Your task to perform on an android device: check android version Image 0: 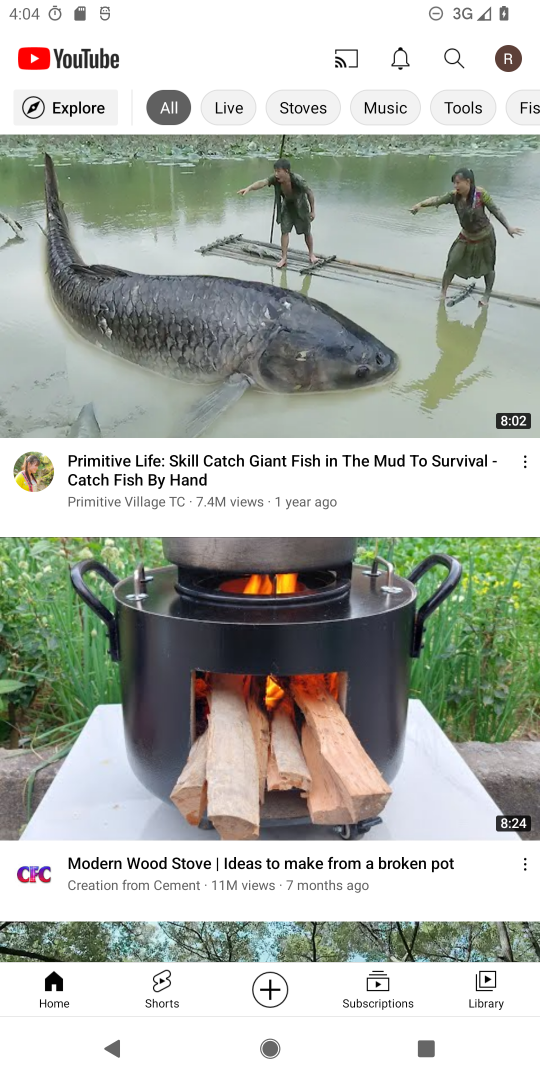
Step 0: press home button
Your task to perform on an android device: check android version Image 1: 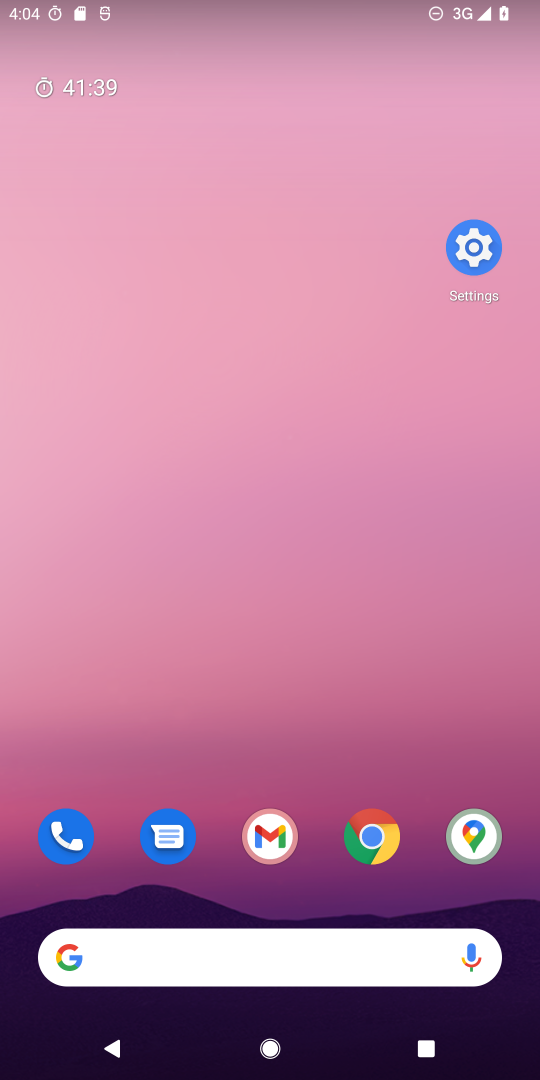
Step 1: drag from (215, 881) to (387, 7)
Your task to perform on an android device: check android version Image 2: 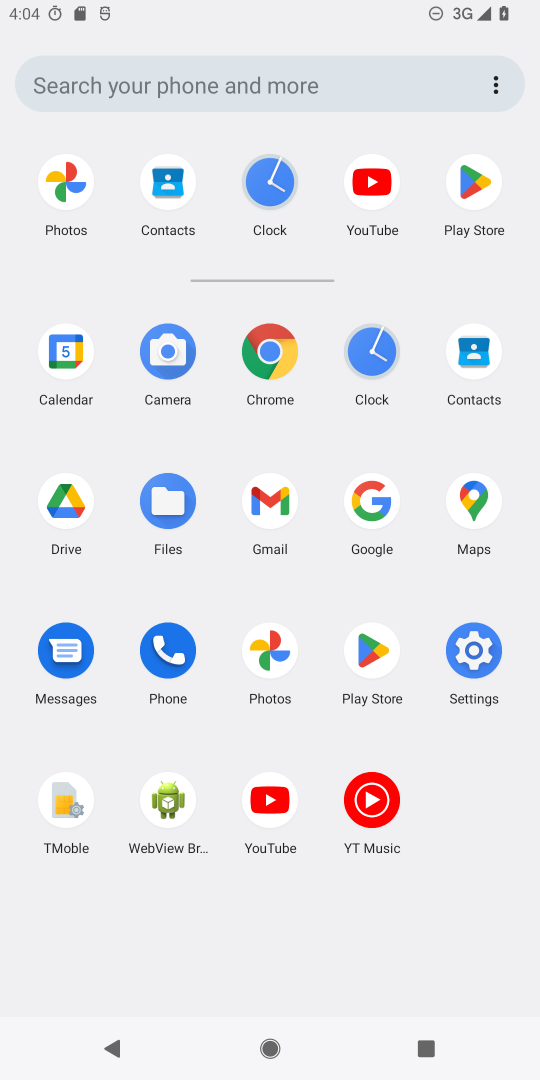
Step 2: click (476, 676)
Your task to perform on an android device: check android version Image 3: 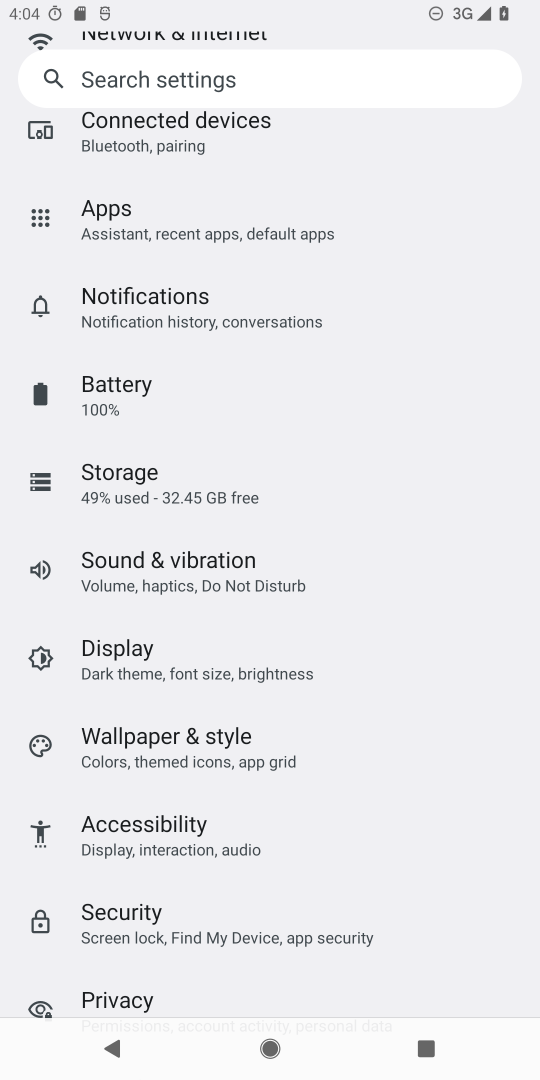
Step 3: drag from (174, 848) to (236, 9)
Your task to perform on an android device: check android version Image 4: 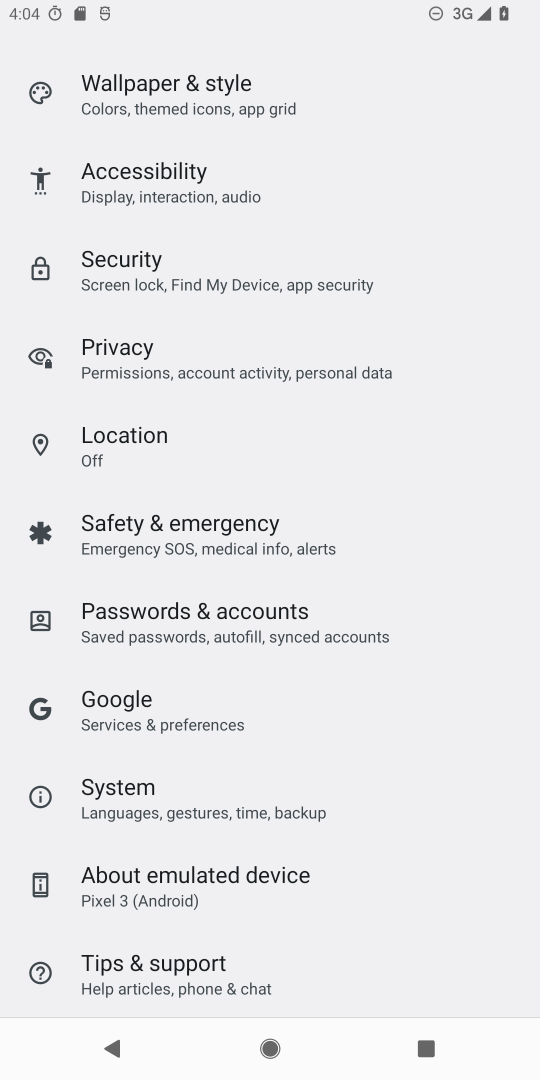
Step 4: drag from (195, 909) to (256, 369)
Your task to perform on an android device: check android version Image 5: 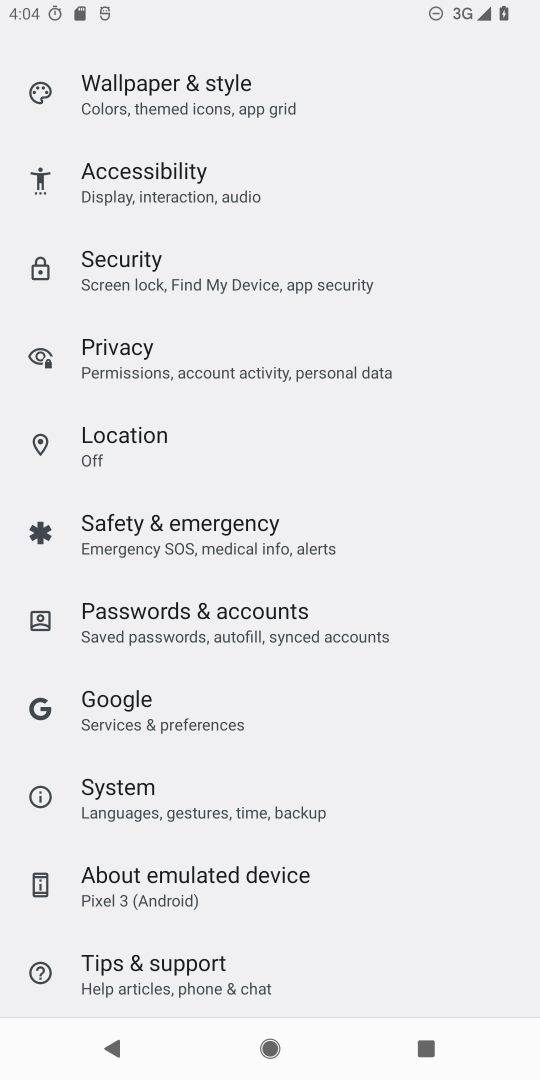
Step 5: click (140, 900)
Your task to perform on an android device: check android version Image 6: 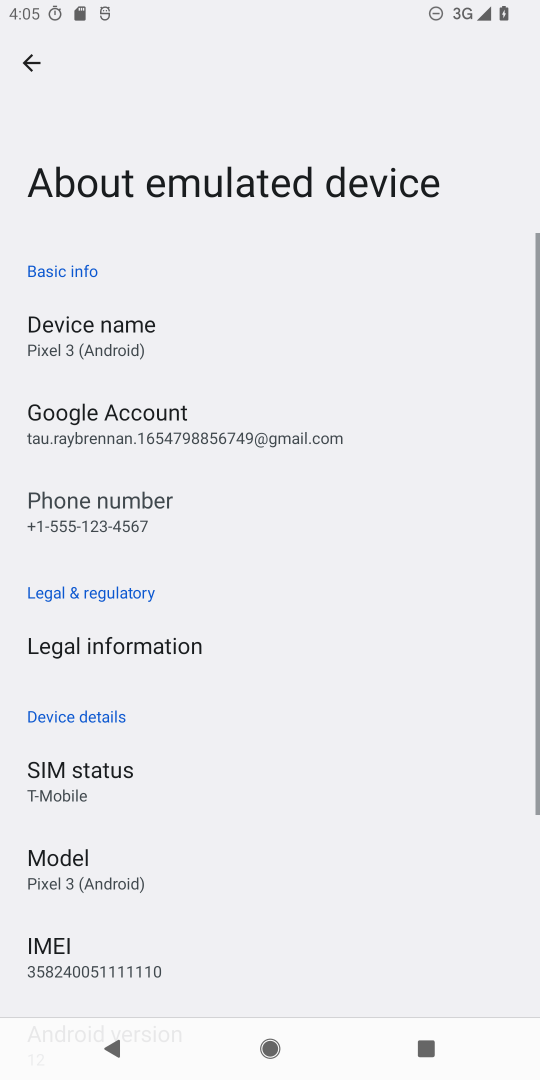
Step 6: drag from (107, 792) to (201, 290)
Your task to perform on an android device: check android version Image 7: 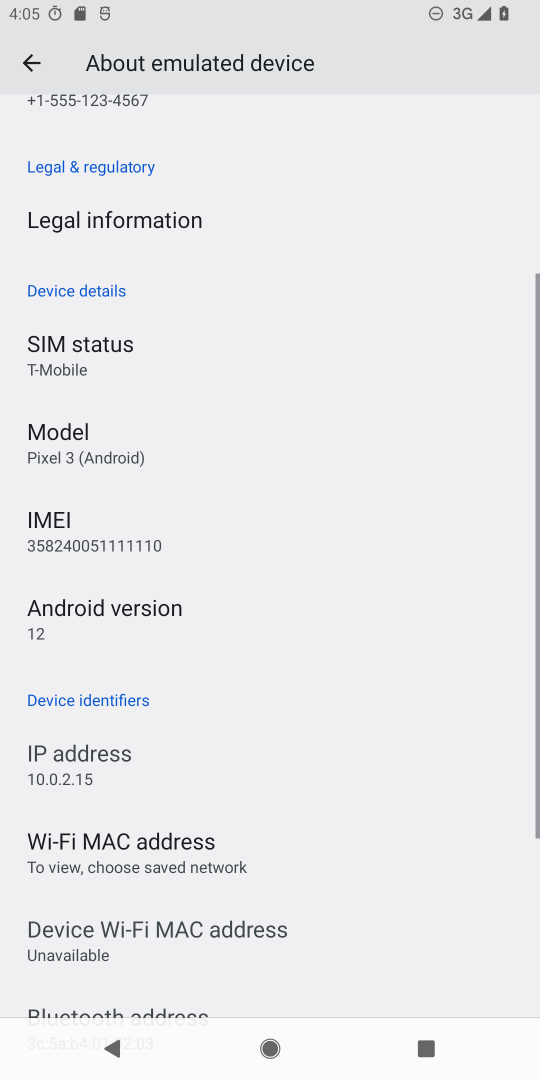
Step 7: click (139, 624)
Your task to perform on an android device: check android version Image 8: 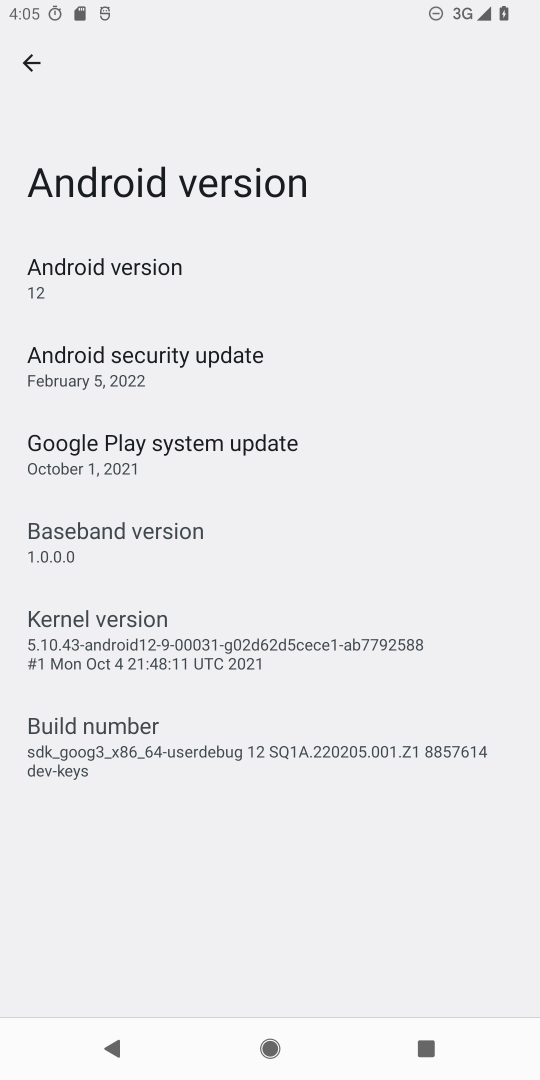
Step 8: task complete